Your task to perform on an android device: Add "macbook" to the cart on target, then select checkout. Image 0: 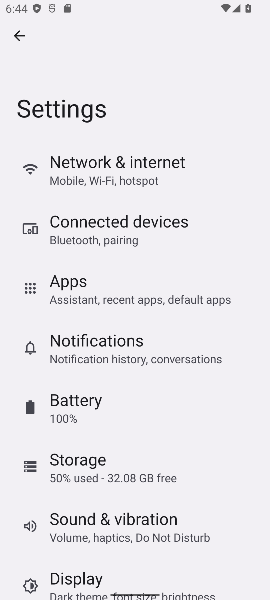
Step 0: press home button
Your task to perform on an android device: Add "macbook" to the cart on target, then select checkout. Image 1: 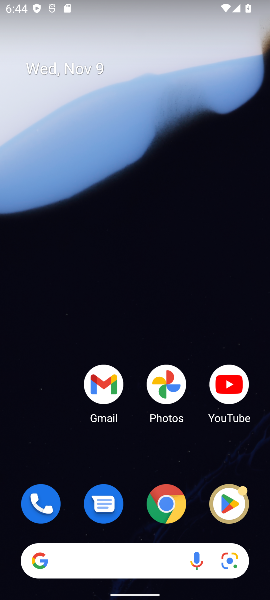
Step 1: click (160, 503)
Your task to perform on an android device: Add "macbook" to the cart on target, then select checkout. Image 2: 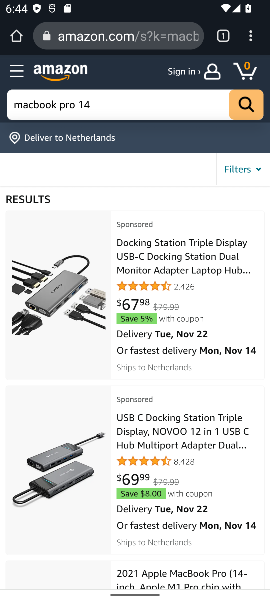
Step 2: click (121, 42)
Your task to perform on an android device: Add "macbook" to the cart on target, then select checkout. Image 3: 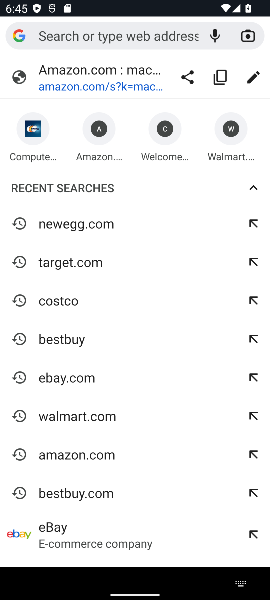
Step 3: type "target"
Your task to perform on an android device: Add "macbook" to the cart on target, then select checkout. Image 4: 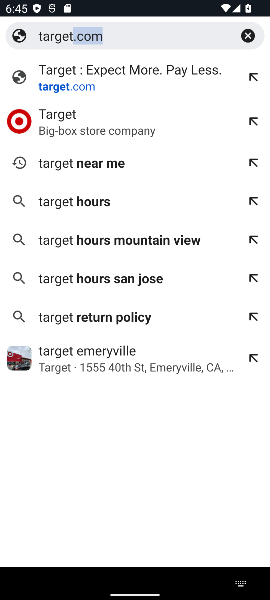
Step 4: click (112, 88)
Your task to perform on an android device: Add "macbook" to the cart on target, then select checkout. Image 5: 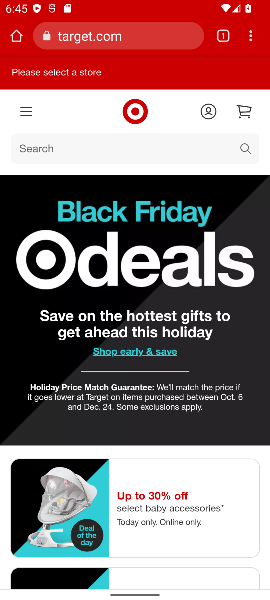
Step 5: click (79, 149)
Your task to perform on an android device: Add "macbook" to the cart on target, then select checkout. Image 6: 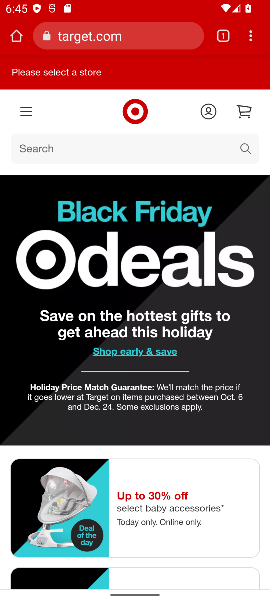
Step 6: click (94, 152)
Your task to perform on an android device: Add "macbook" to the cart on target, then select checkout. Image 7: 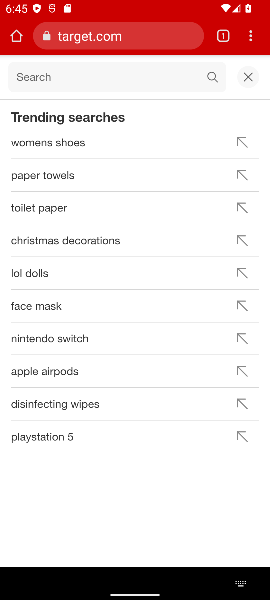
Step 7: type "macbook"
Your task to perform on an android device: Add "macbook" to the cart on target, then select checkout. Image 8: 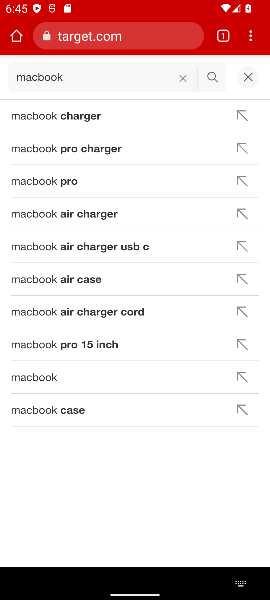
Step 8: press enter
Your task to perform on an android device: Add "macbook" to the cart on target, then select checkout. Image 9: 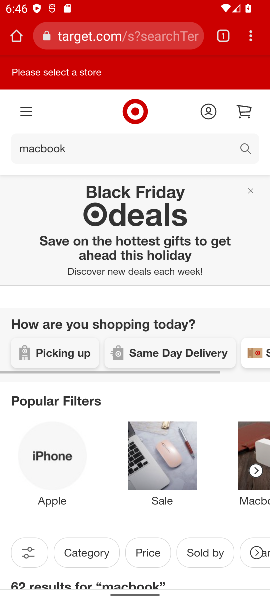
Step 9: task complete